Your task to perform on an android device: Search for Mexican restaurants on Maps Image 0: 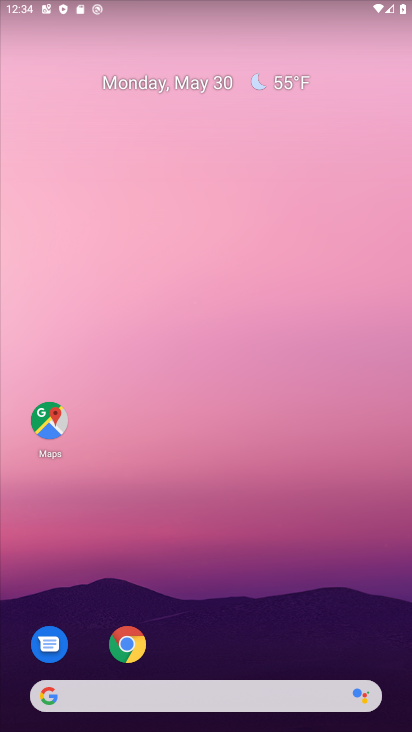
Step 0: click (135, 646)
Your task to perform on an android device: Search for Mexican restaurants on Maps Image 1: 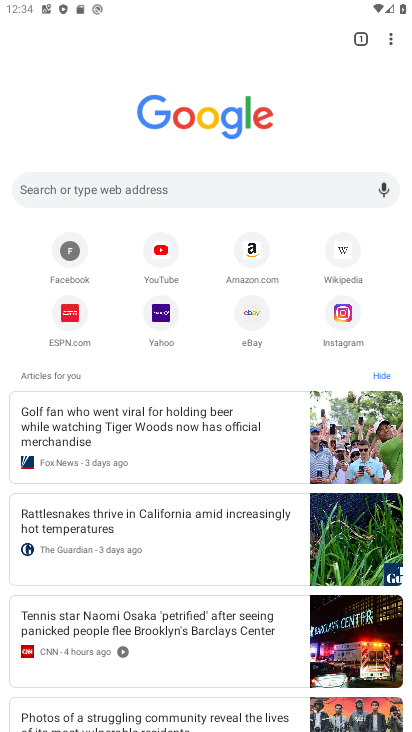
Step 1: press home button
Your task to perform on an android device: Search for Mexican restaurants on Maps Image 2: 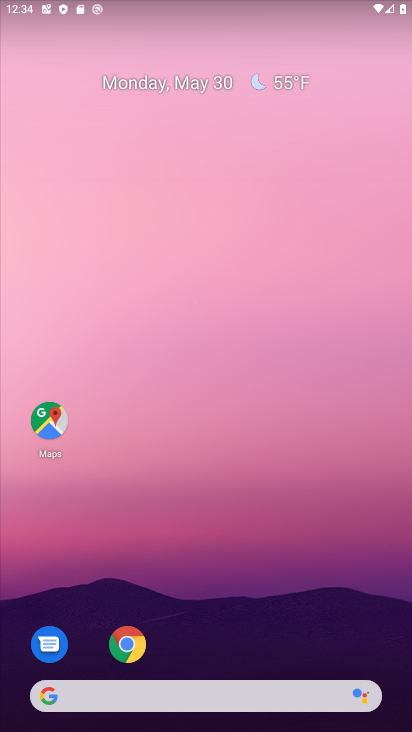
Step 2: click (64, 409)
Your task to perform on an android device: Search for Mexican restaurants on Maps Image 3: 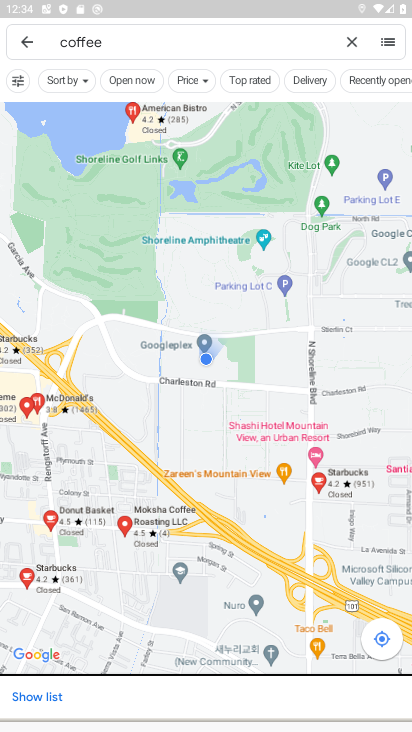
Step 3: click (344, 37)
Your task to perform on an android device: Search for Mexican restaurants on Maps Image 4: 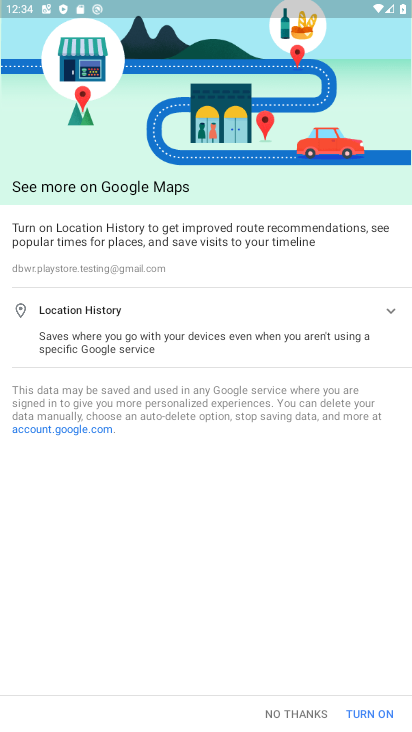
Step 4: click (299, 717)
Your task to perform on an android device: Search for Mexican restaurants on Maps Image 5: 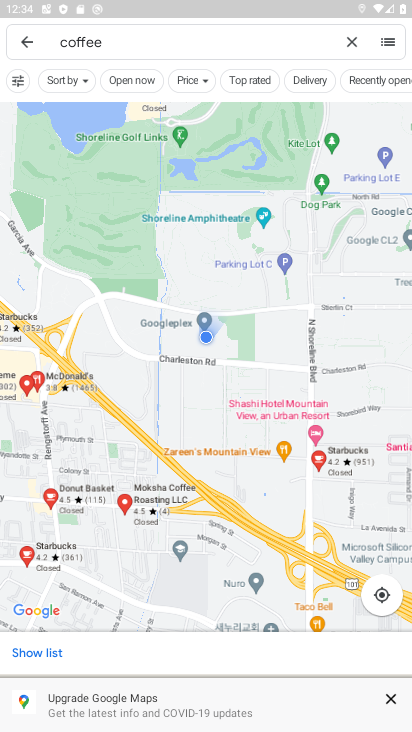
Step 5: click (352, 48)
Your task to perform on an android device: Search for Mexican restaurants on Maps Image 6: 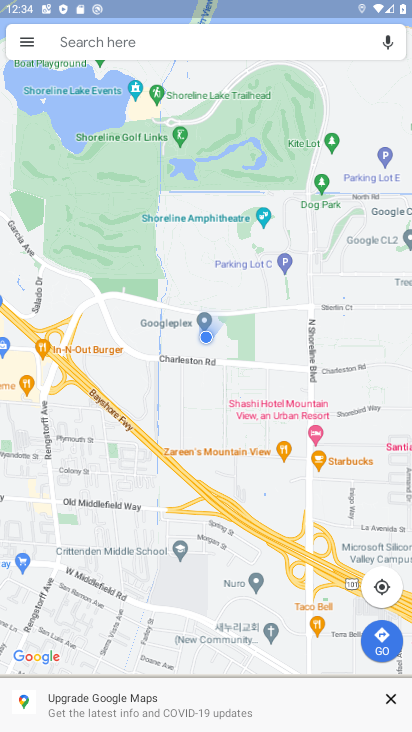
Step 6: click (305, 48)
Your task to perform on an android device: Search for Mexican restaurants on Maps Image 7: 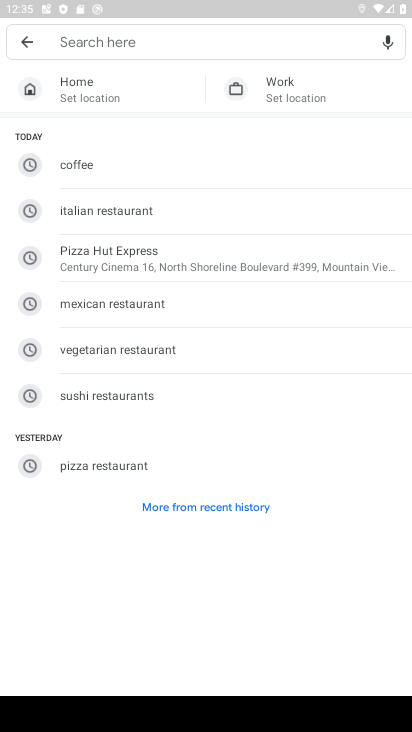
Step 7: click (257, 316)
Your task to perform on an android device: Search for Mexican restaurants on Maps Image 8: 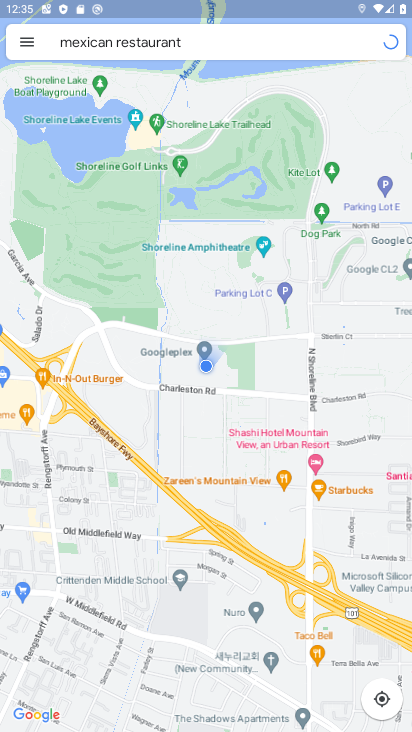
Step 8: task complete